Your task to perform on an android device: Open my contact list Image 0: 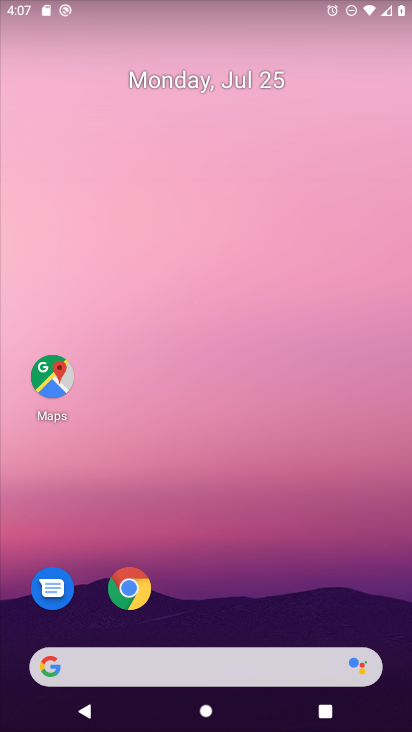
Step 0: drag from (230, 727) to (240, 158)
Your task to perform on an android device: Open my contact list Image 1: 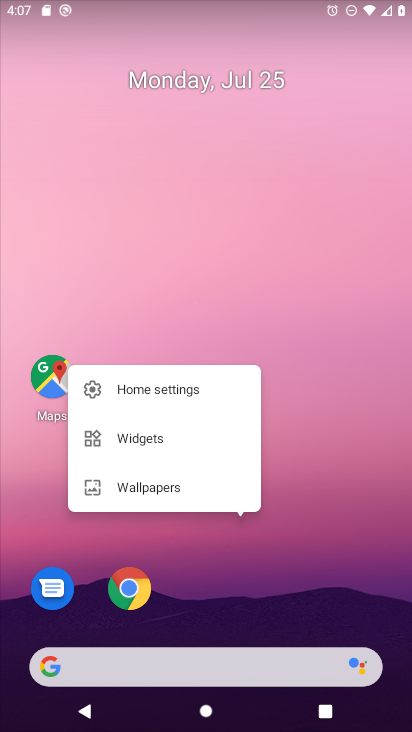
Step 1: click (296, 416)
Your task to perform on an android device: Open my contact list Image 2: 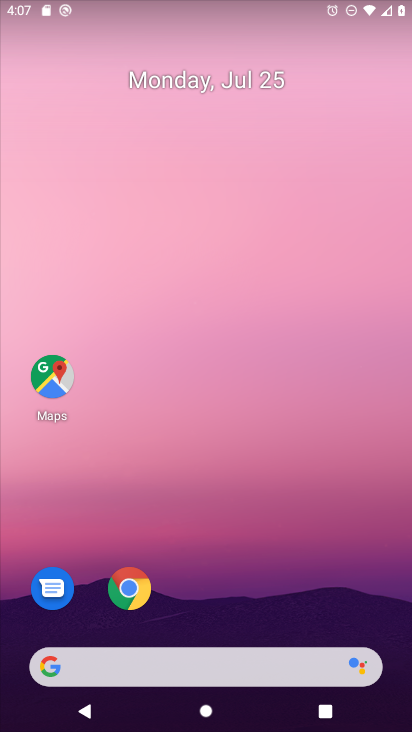
Step 2: drag from (238, 728) to (259, 72)
Your task to perform on an android device: Open my contact list Image 3: 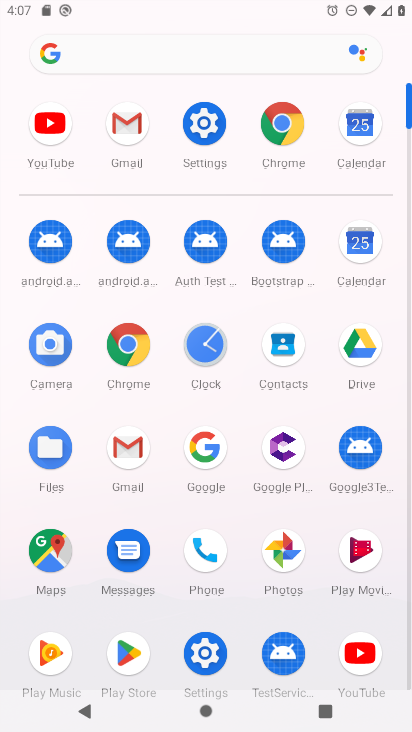
Step 3: click (287, 340)
Your task to perform on an android device: Open my contact list Image 4: 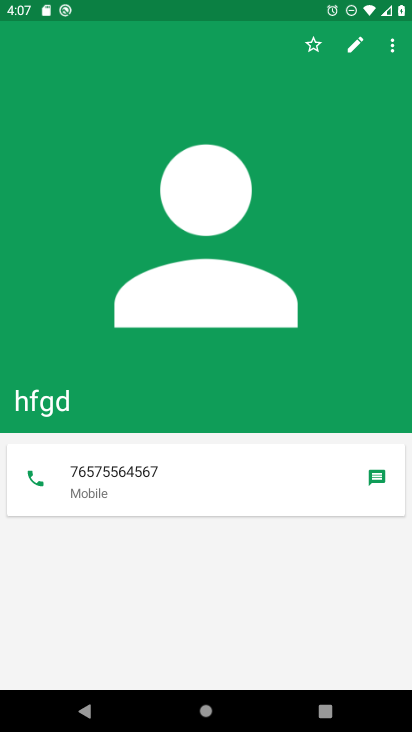
Step 4: task complete